Your task to perform on an android device: Open the calendar and show me this week's events? Image 0: 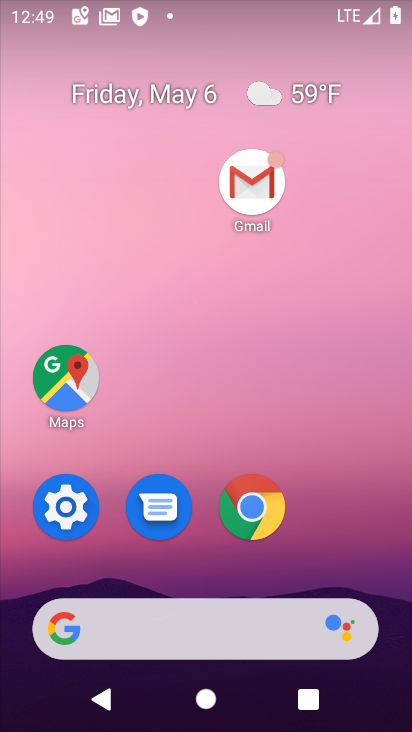
Step 0: drag from (336, 525) to (328, 36)
Your task to perform on an android device: Open the calendar and show me this week's events? Image 1: 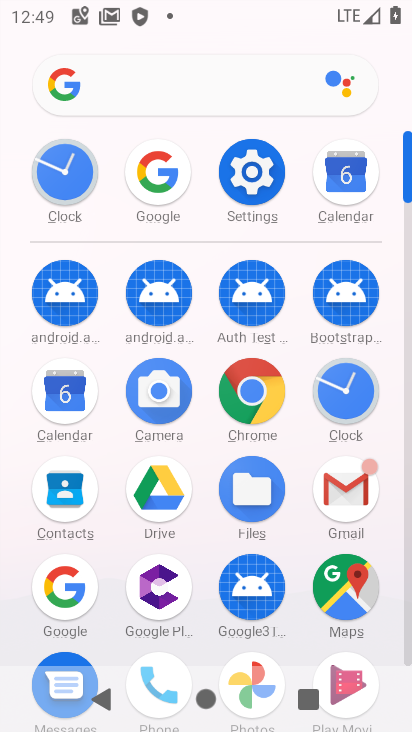
Step 1: click (65, 386)
Your task to perform on an android device: Open the calendar and show me this week's events? Image 2: 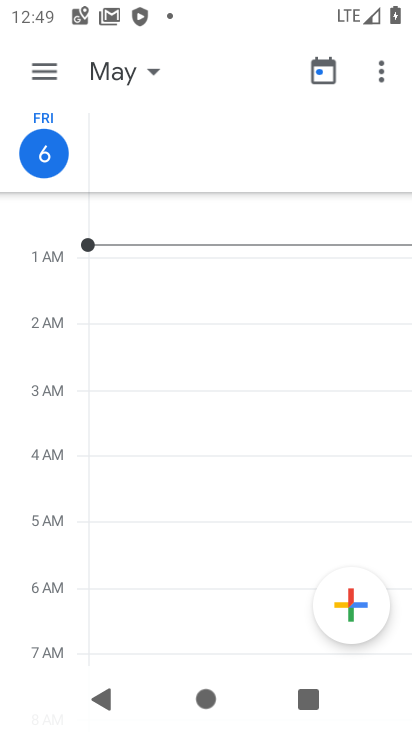
Step 2: click (148, 75)
Your task to perform on an android device: Open the calendar and show me this week's events? Image 3: 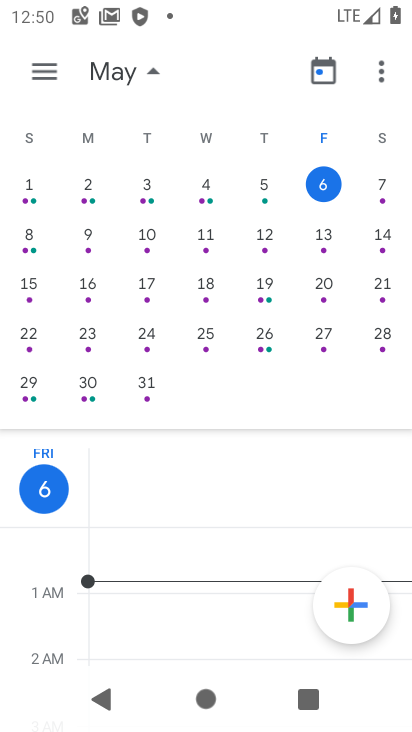
Step 3: click (45, 66)
Your task to perform on an android device: Open the calendar and show me this week's events? Image 4: 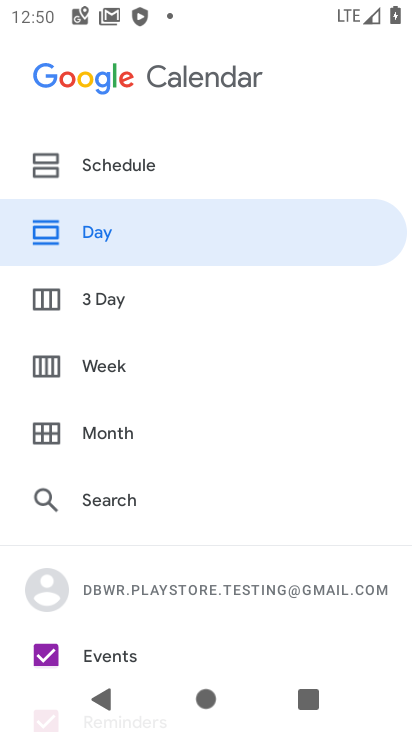
Step 4: click (105, 367)
Your task to perform on an android device: Open the calendar and show me this week's events? Image 5: 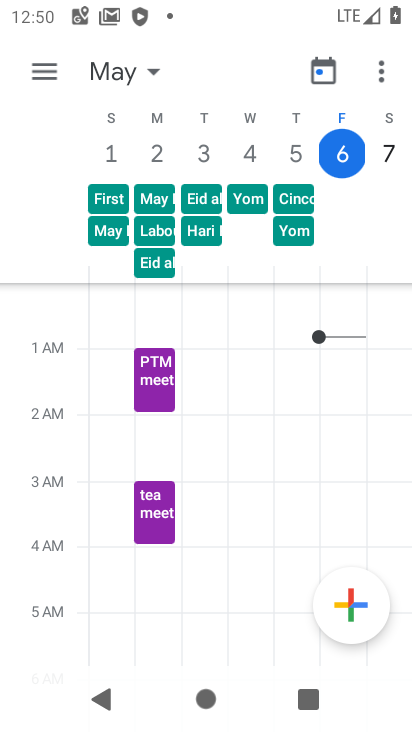
Step 5: task complete